Your task to perform on an android device: Clear all items from cart on newegg.com. Add razer huntsman to the cart on newegg.com Image 0: 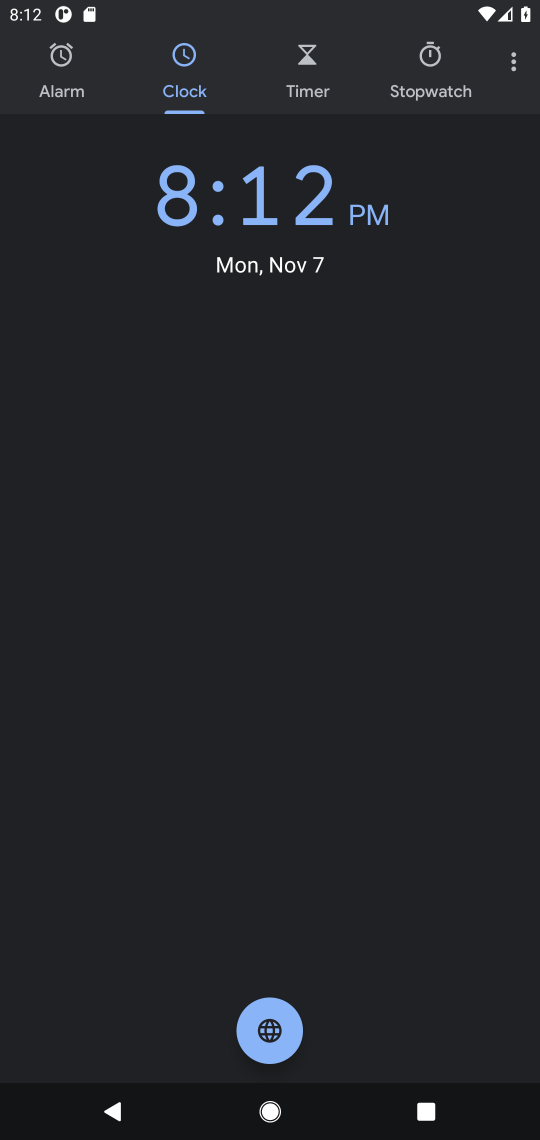
Step 0: press home button
Your task to perform on an android device: Clear all items from cart on newegg.com. Add razer huntsman to the cart on newegg.com Image 1: 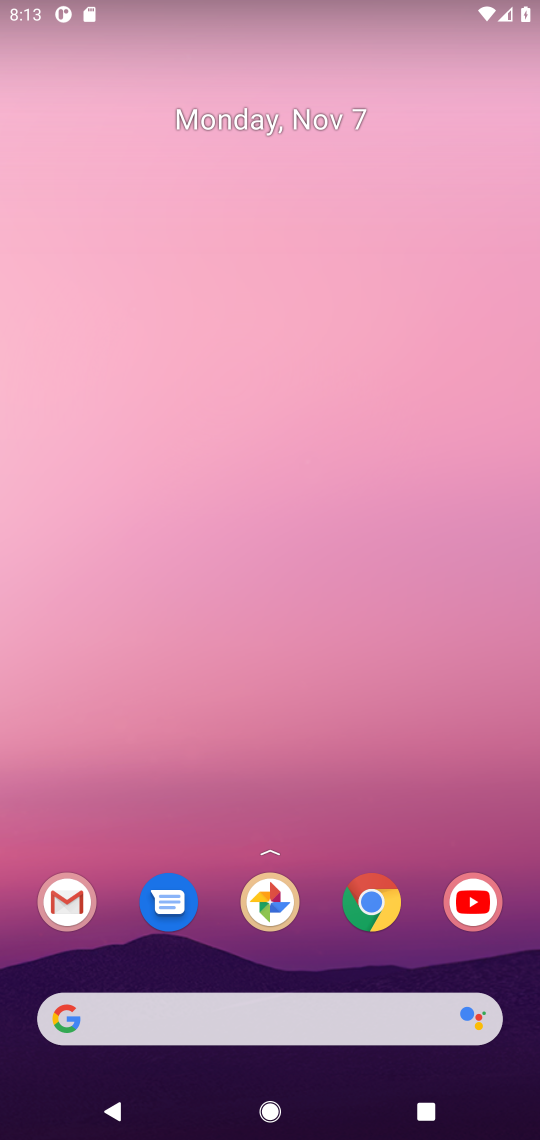
Step 1: click (370, 903)
Your task to perform on an android device: Clear all items from cart on newegg.com. Add razer huntsman to the cart on newegg.com Image 2: 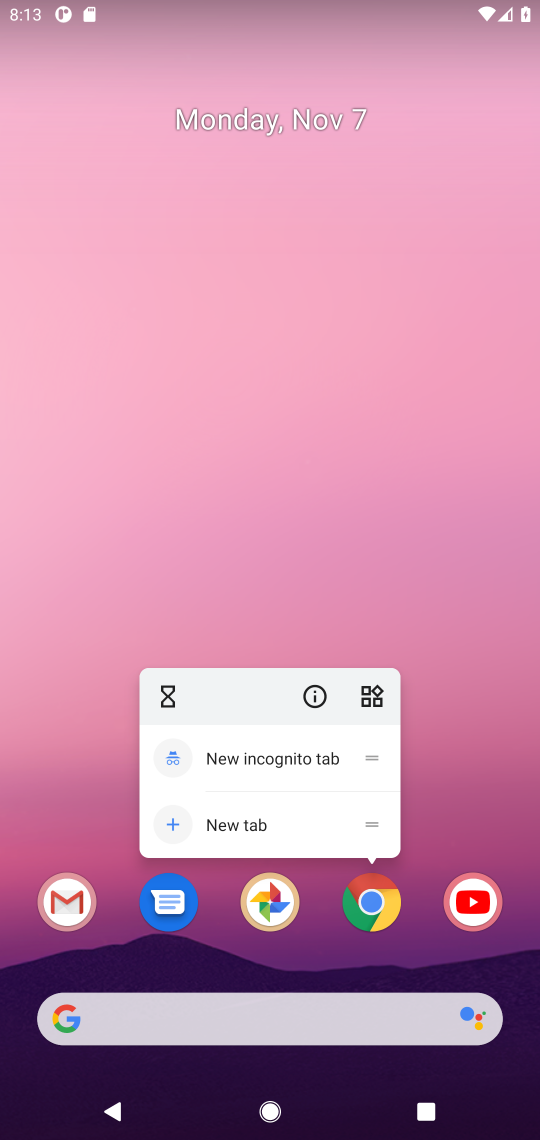
Step 2: click (370, 903)
Your task to perform on an android device: Clear all items from cart on newegg.com. Add razer huntsman to the cart on newegg.com Image 3: 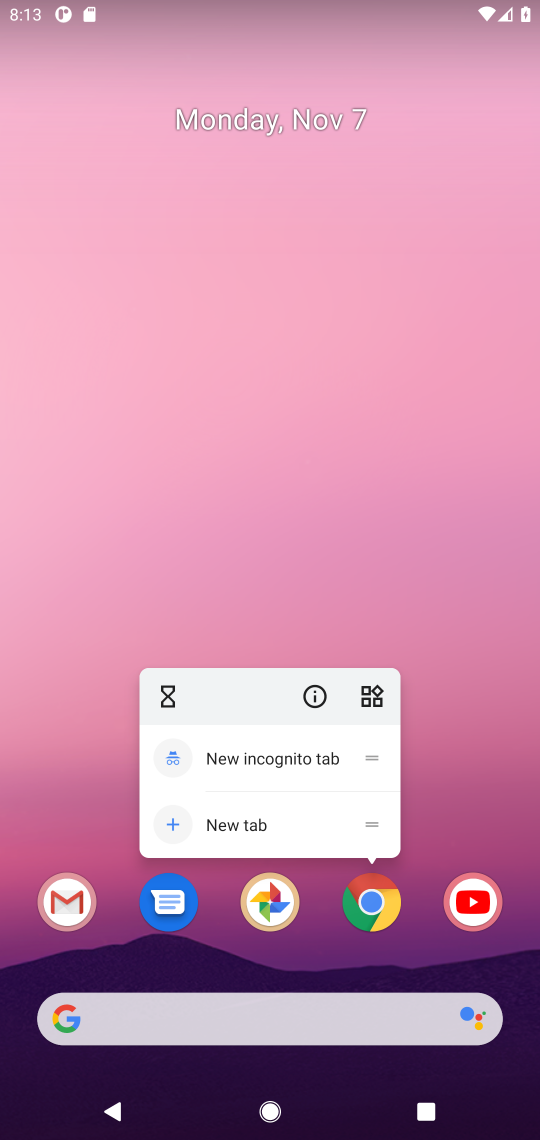
Step 3: click (370, 910)
Your task to perform on an android device: Clear all items from cart on newegg.com. Add razer huntsman to the cart on newegg.com Image 4: 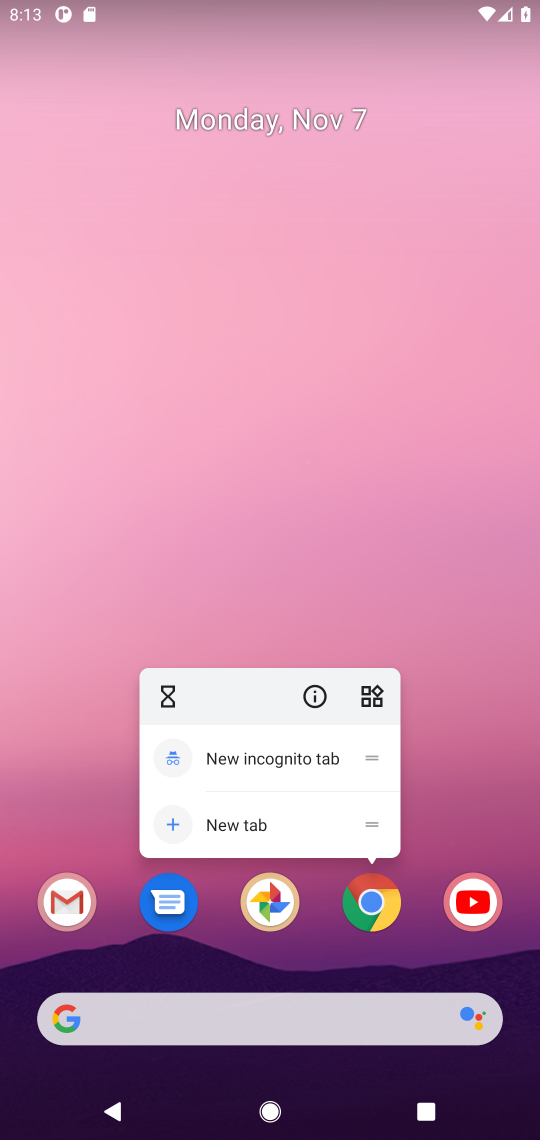
Step 4: click (370, 910)
Your task to perform on an android device: Clear all items from cart on newegg.com. Add razer huntsman to the cart on newegg.com Image 5: 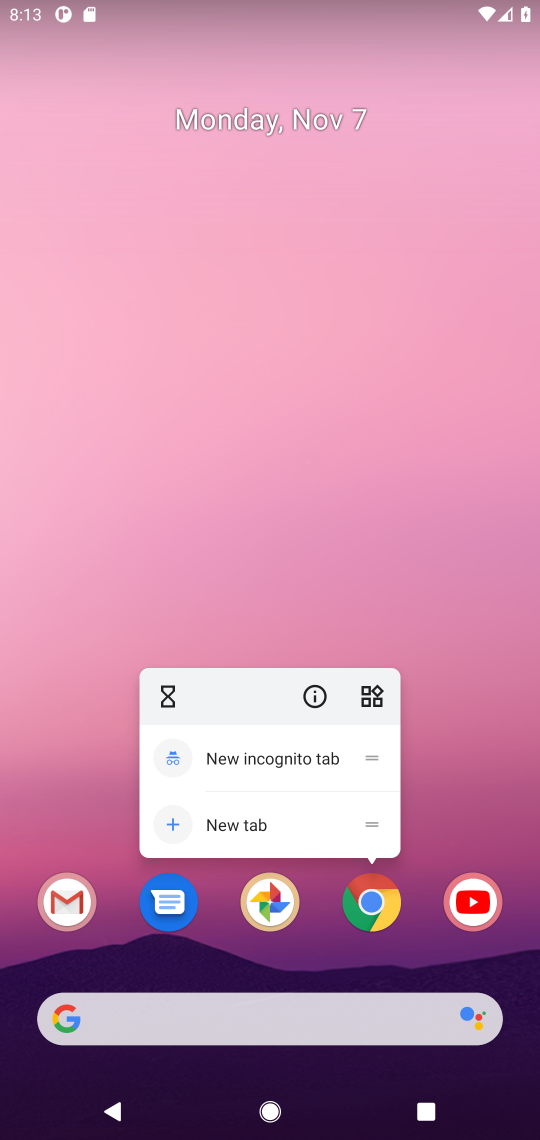
Step 5: click (370, 910)
Your task to perform on an android device: Clear all items from cart on newegg.com. Add razer huntsman to the cart on newegg.com Image 6: 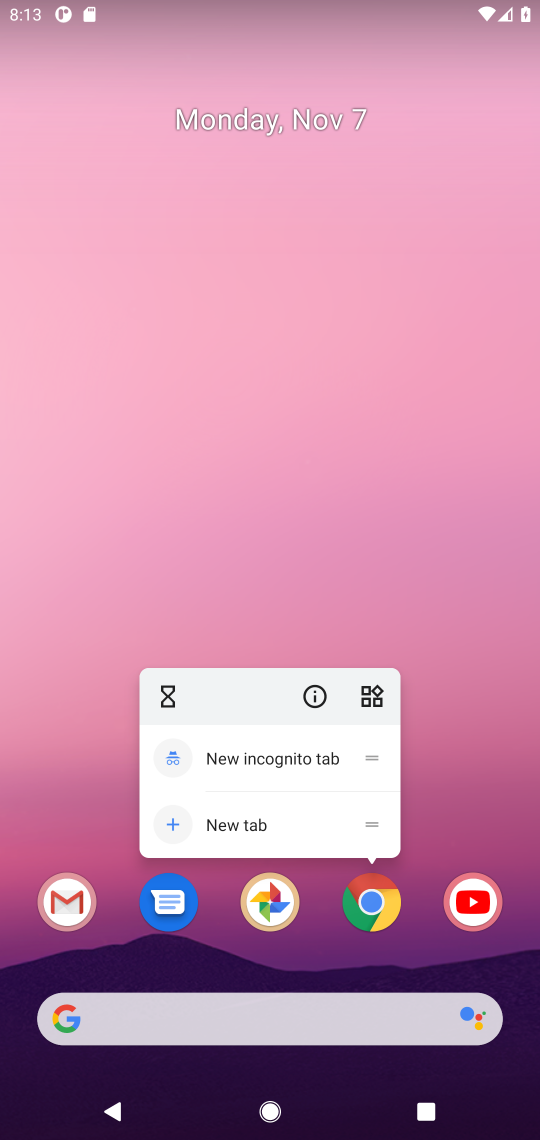
Step 6: click (370, 910)
Your task to perform on an android device: Clear all items from cart on newegg.com. Add razer huntsman to the cart on newegg.com Image 7: 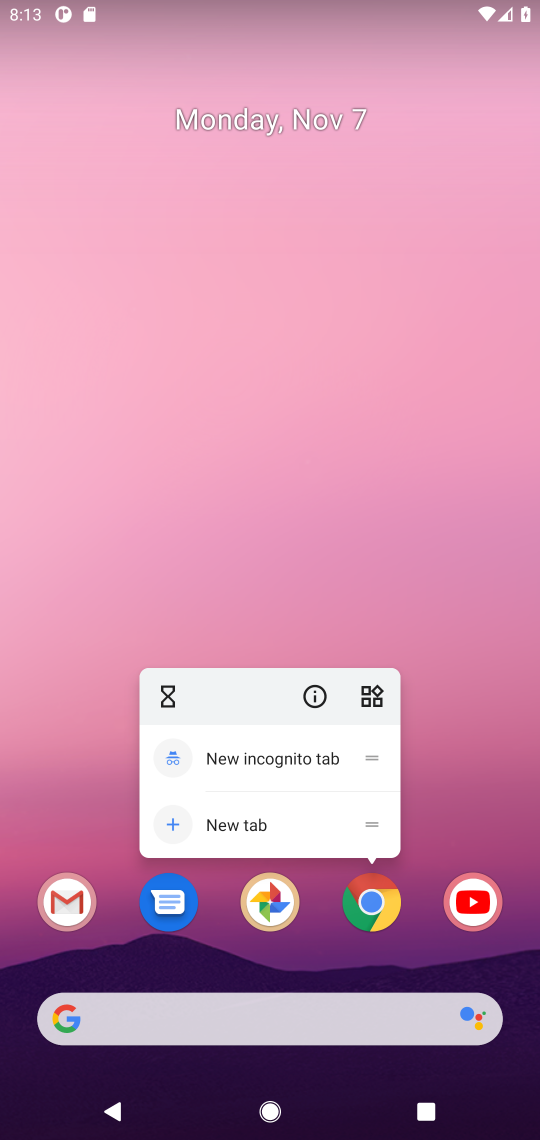
Step 7: click (502, 561)
Your task to perform on an android device: Clear all items from cart on newegg.com. Add razer huntsman to the cart on newegg.com Image 8: 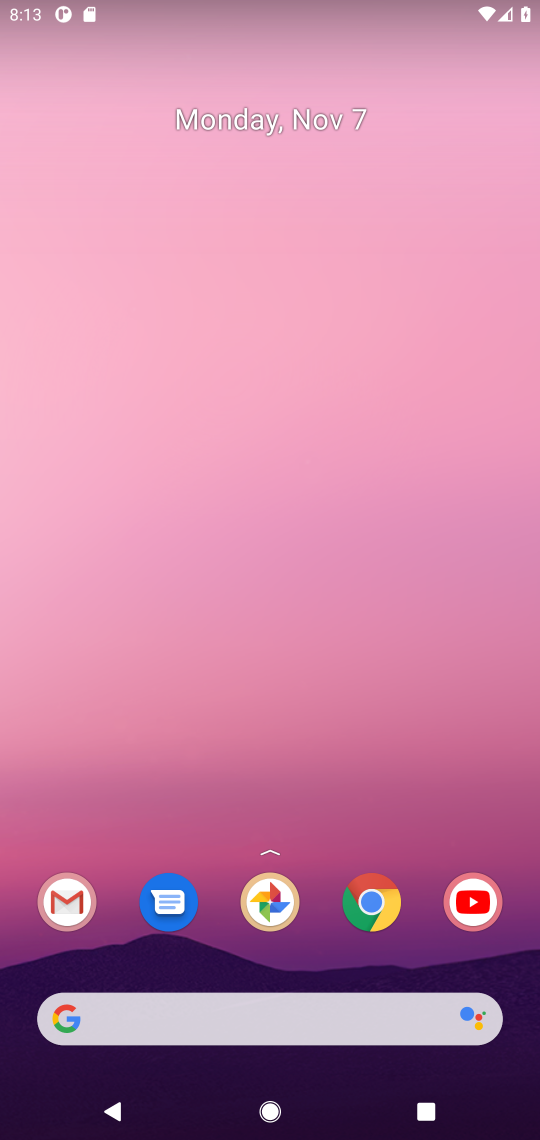
Step 8: click (368, 908)
Your task to perform on an android device: Clear all items from cart on newegg.com. Add razer huntsman to the cart on newegg.com Image 9: 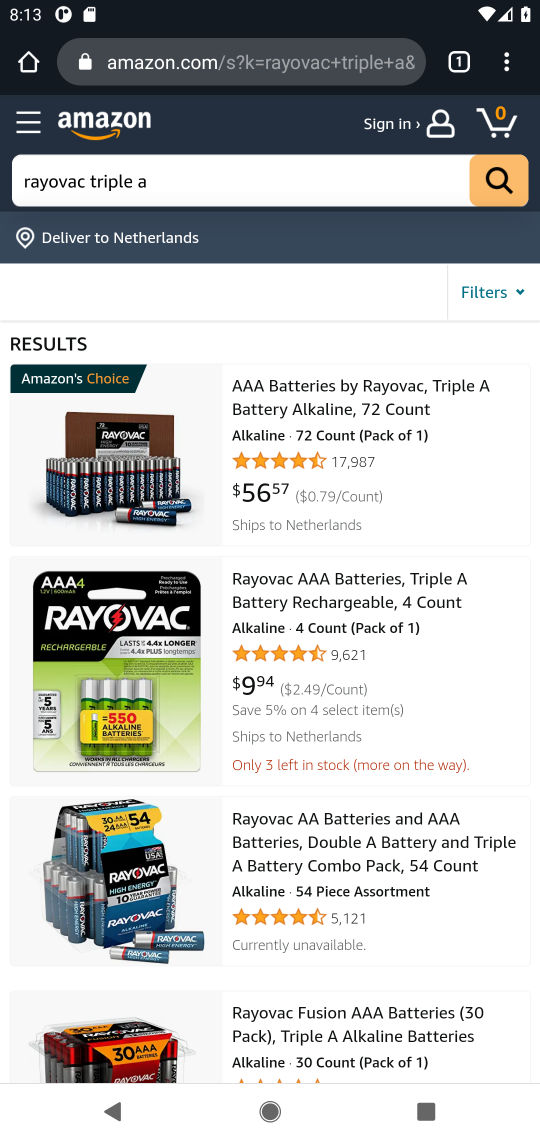
Step 9: click (195, 71)
Your task to perform on an android device: Clear all items from cart on newegg.com. Add razer huntsman to the cart on newegg.com Image 10: 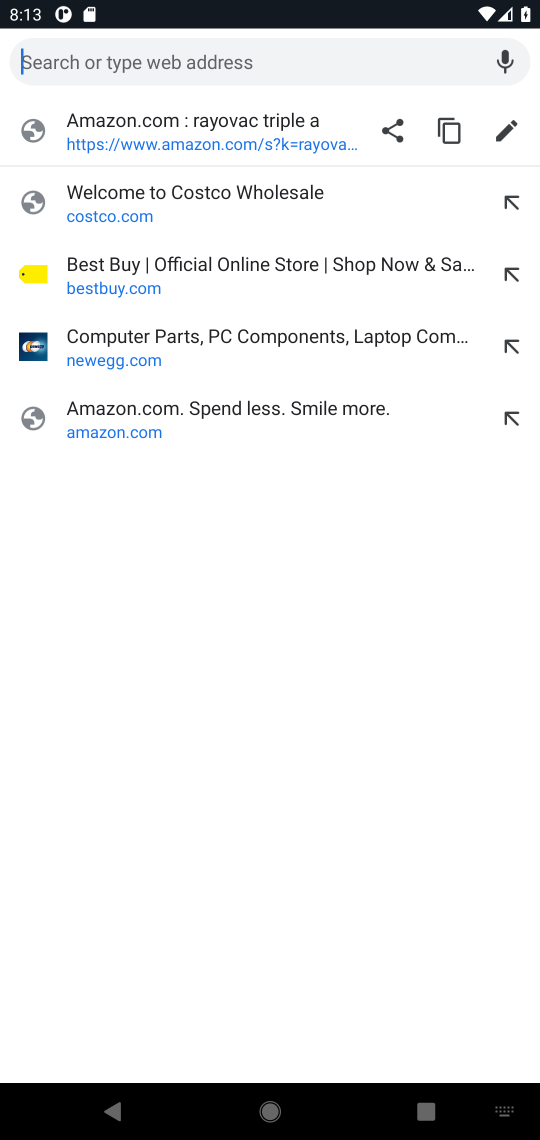
Step 10: click (123, 348)
Your task to perform on an android device: Clear all items from cart on newegg.com. Add razer huntsman to the cart on newegg.com Image 11: 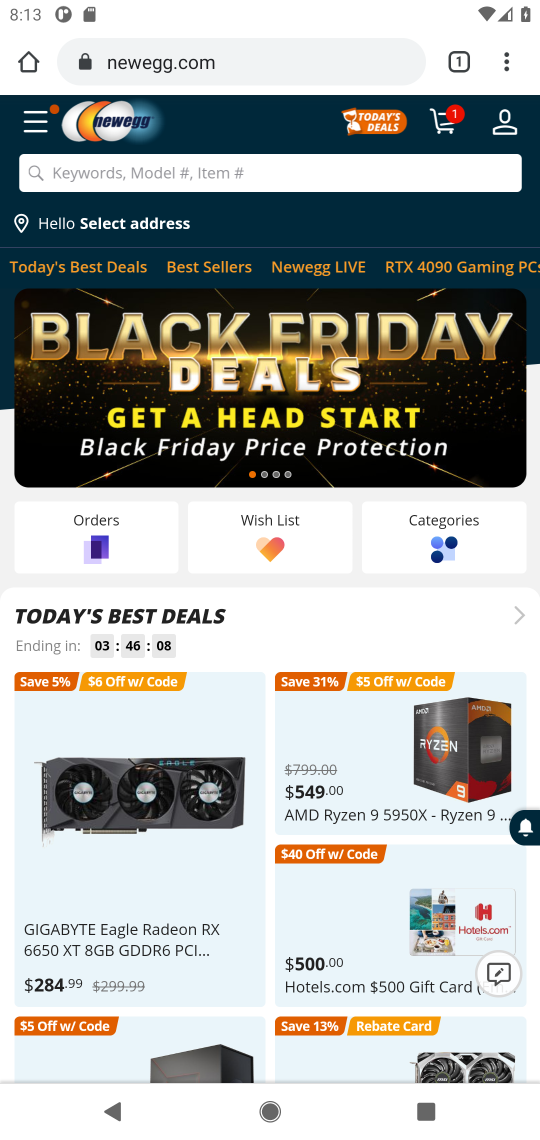
Step 11: click (439, 107)
Your task to perform on an android device: Clear all items from cart on newegg.com. Add razer huntsman to the cart on newegg.com Image 12: 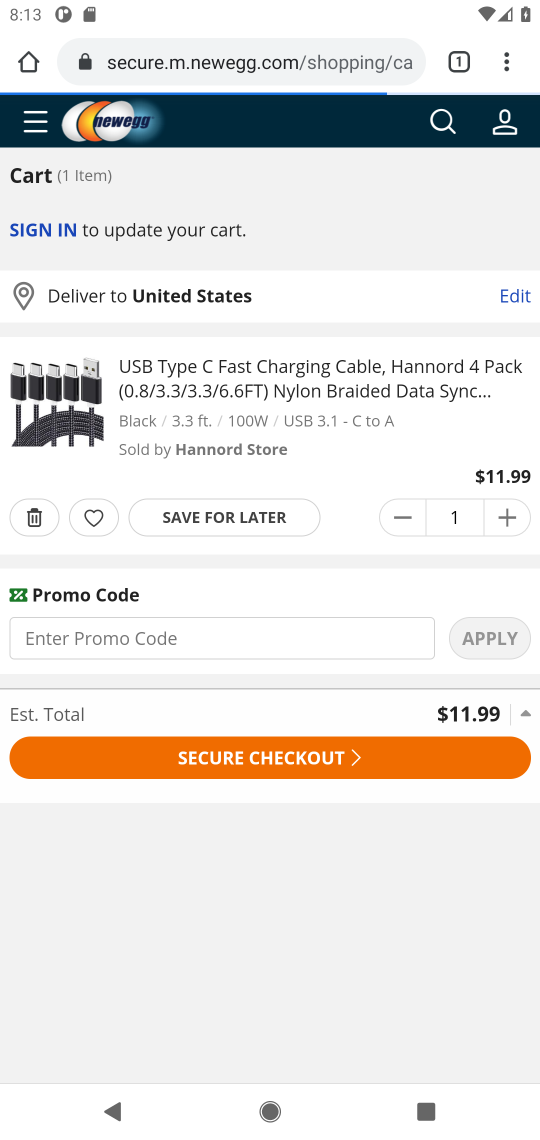
Step 12: click (40, 518)
Your task to perform on an android device: Clear all items from cart on newegg.com. Add razer huntsman to the cart on newegg.com Image 13: 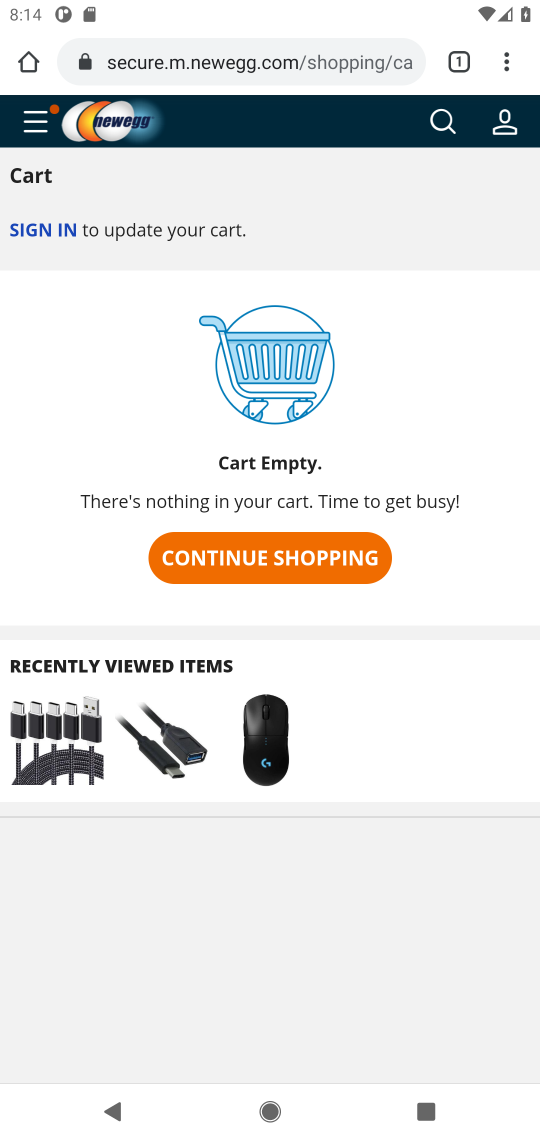
Step 13: click (444, 126)
Your task to perform on an android device: Clear all items from cart on newegg.com. Add razer huntsman to the cart on newegg.com Image 14: 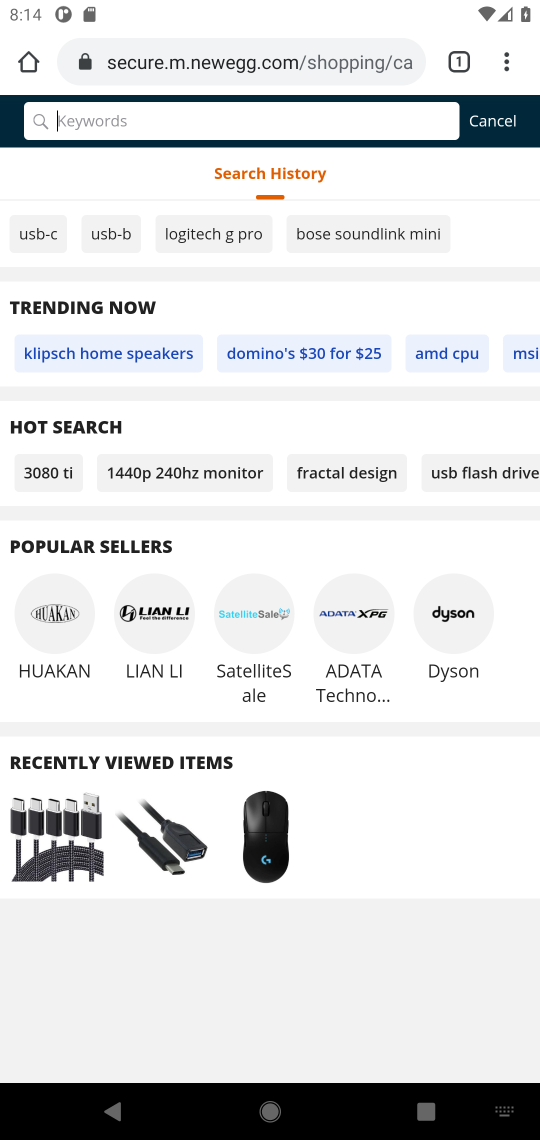
Step 14: type " razer huntsman"
Your task to perform on an android device: Clear all items from cart on newegg.com. Add razer huntsman to the cart on newegg.com Image 15: 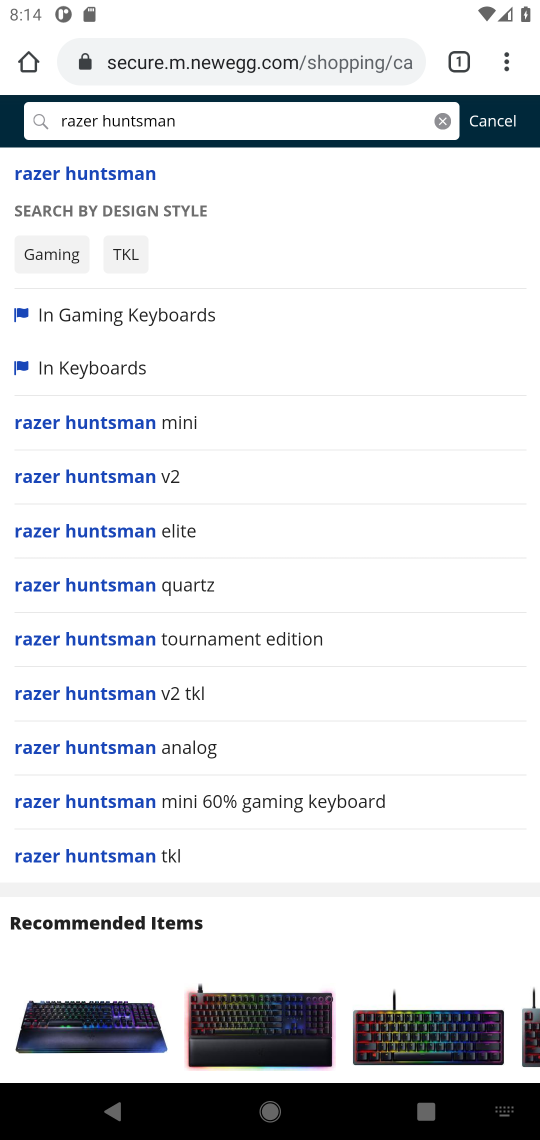
Step 15: click (76, 180)
Your task to perform on an android device: Clear all items from cart on newegg.com. Add razer huntsman to the cart on newegg.com Image 16: 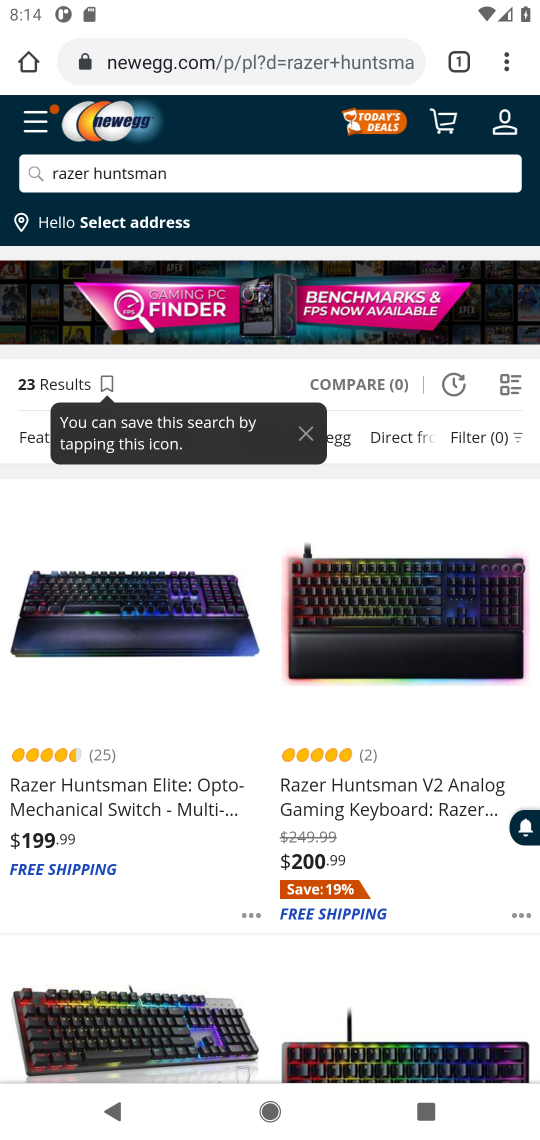
Step 16: click (120, 799)
Your task to perform on an android device: Clear all items from cart on newegg.com. Add razer huntsman to the cart on newegg.com Image 17: 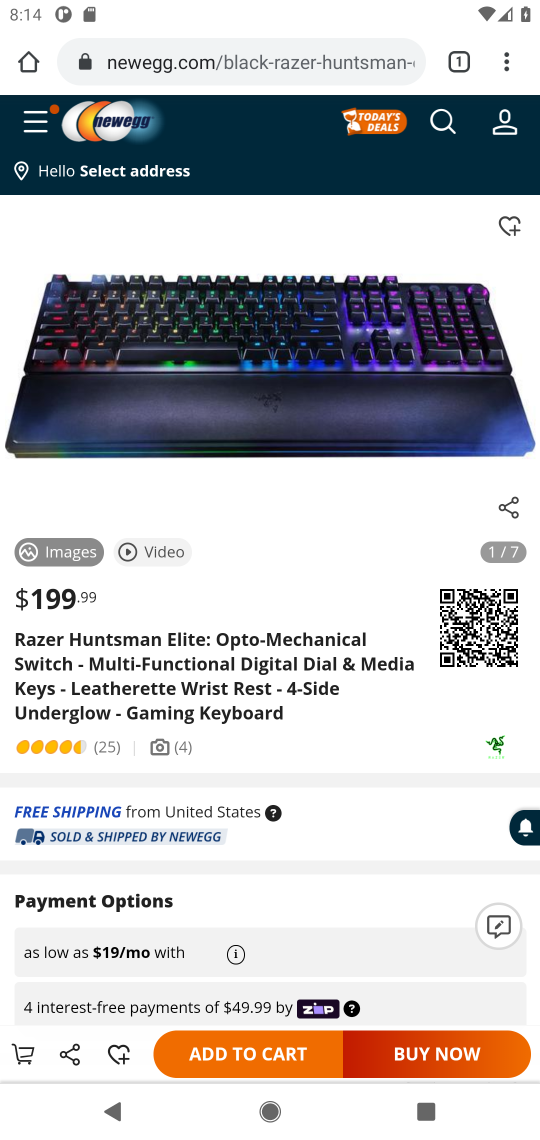
Step 17: click (239, 1049)
Your task to perform on an android device: Clear all items from cart on newegg.com. Add razer huntsman to the cart on newegg.com Image 18: 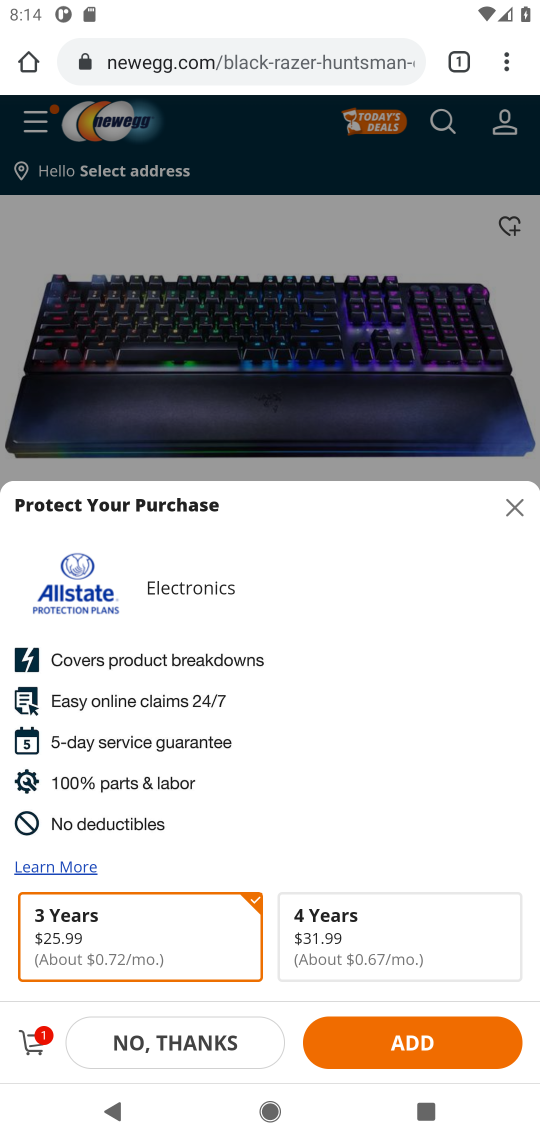
Step 18: task complete